Your task to perform on an android device: Go to notification settings Image 0: 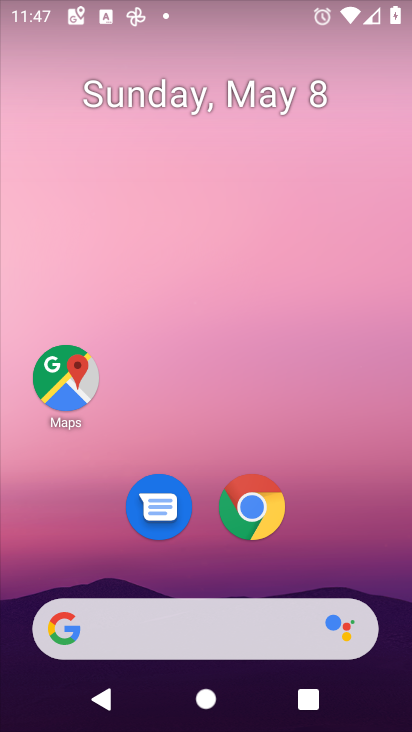
Step 0: drag from (258, 675) to (206, 231)
Your task to perform on an android device: Go to notification settings Image 1: 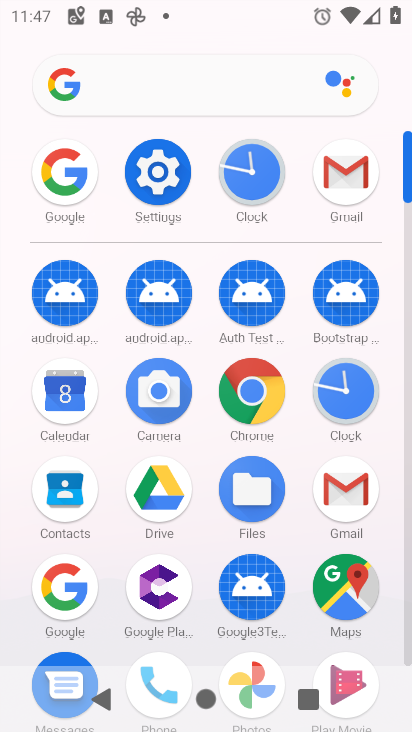
Step 1: click (172, 188)
Your task to perform on an android device: Go to notification settings Image 2: 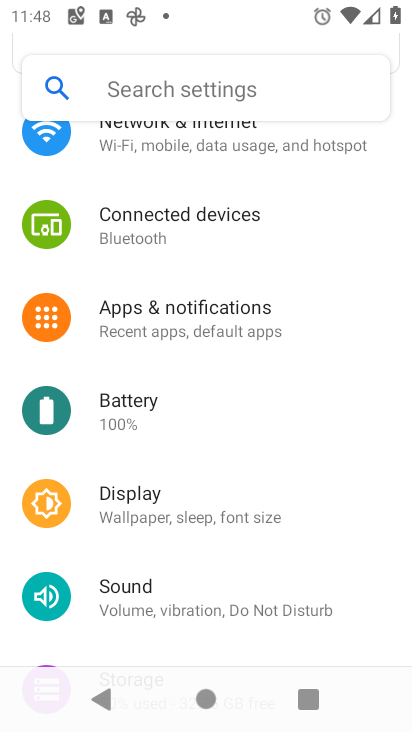
Step 2: click (251, 325)
Your task to perform on an android device: Go to notification settings Image 3: 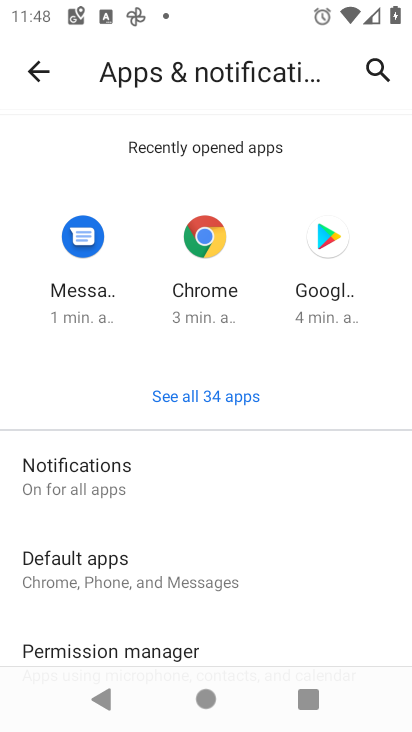
Step 3: task complete